Your task to perform on an android device: change timer sound Image 0: 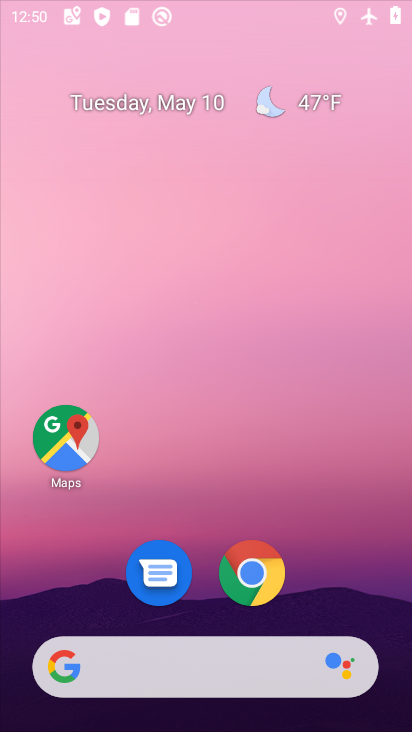
Step 0: click (176, 277)
Your task to perform on an android device: change timer sound Image 1: 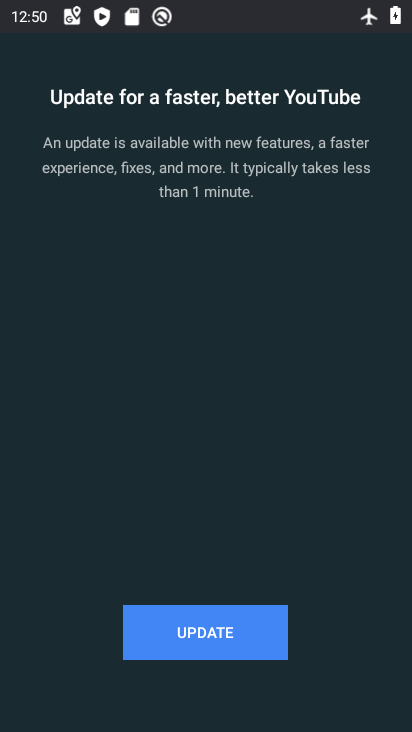
Step 1: press home button
Your task to perform on an android device: change timer sound Image 2: 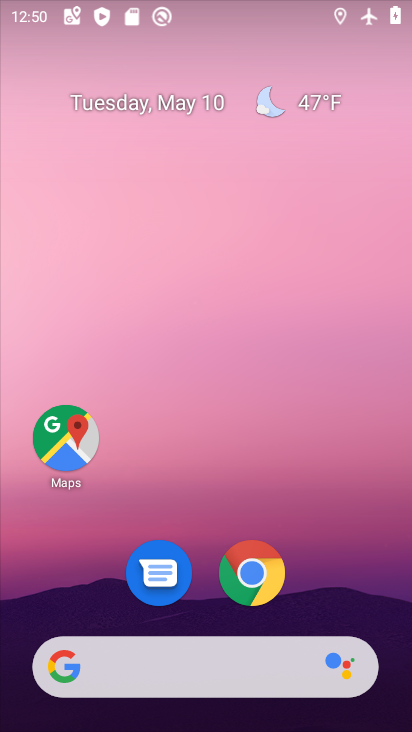
Step 2: drag from (197, 624) to (271, 175)
Your task to perform on an android device: change timer sound Image 3: 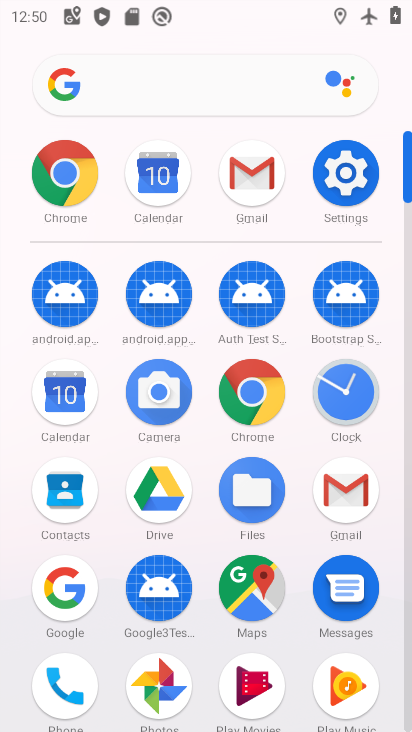
Step 3: click (334, 400)
Your task to perform on an android device: change timer sound Image 4: 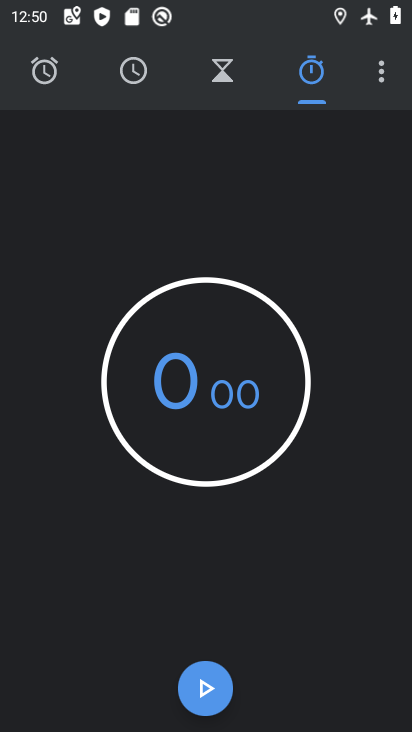
Step 4: drag from (239, 663) to (218, 305)
Your task to perform on an android device: change timer sound Image 5: 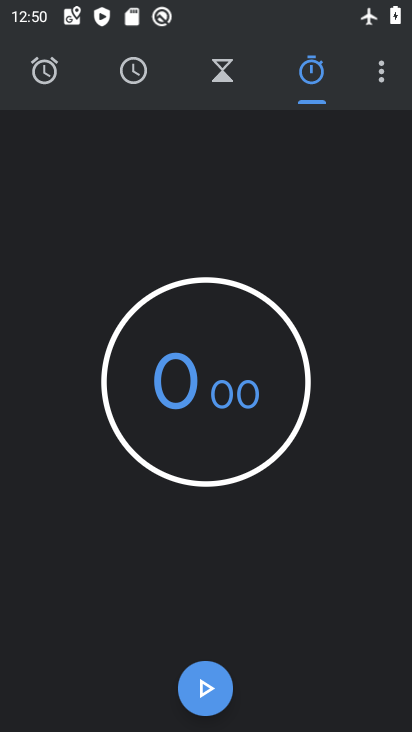
Step 5: click (380, 71)
Your task to perform on an android device: change timer sound Image 6: 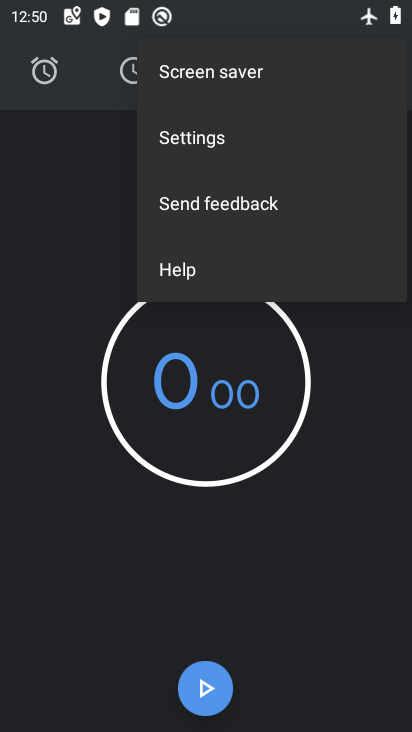
Step 6: click (263, 154)
Your task to perform on an android device: change timer sound Image 7: 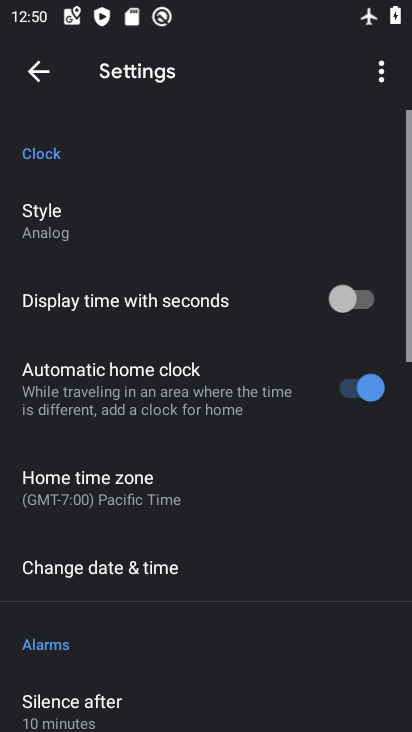
Step 7: drag from (263, 567) to (268, 229)
Your task to perform on an android device: change timer sound Image 8: 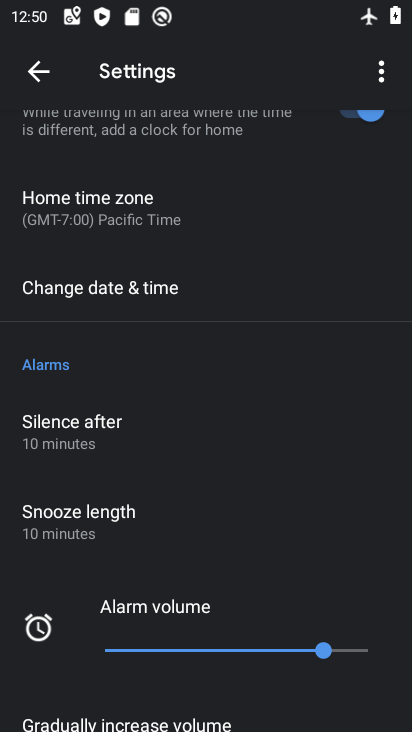
Step 8: drag from (242, 550) to (238, 276)
Your task to perform on an android device: change timer sound Image 9: 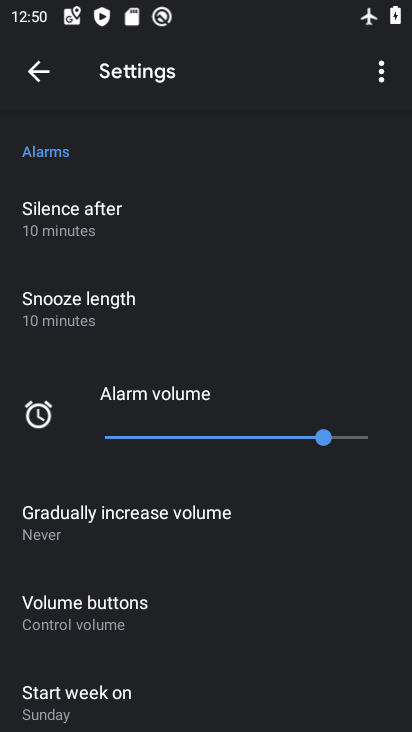
Step 9: drag from (149, 656) to (219, 295)
Your task to perform on an android device: change timer sound Image 10: 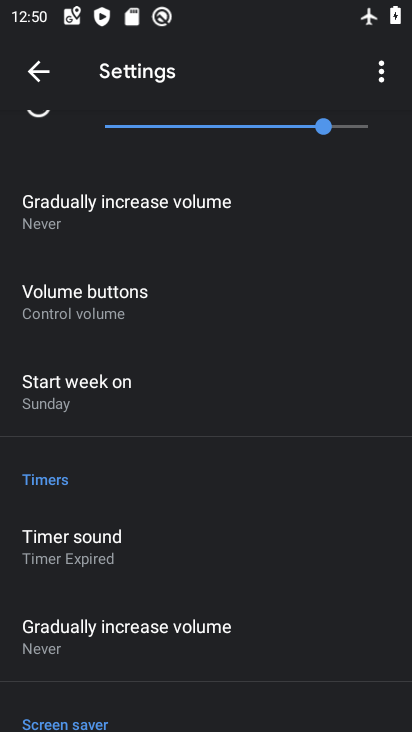
Step 10: click (120, 537)
Your task to perform on an android device: change timer sound Image 11: 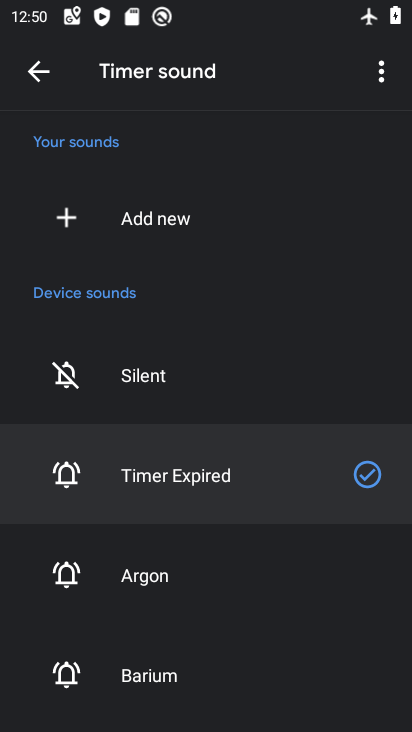
Step 11: drag from (169, 670) to (219, 302)
Your task to perform on an android device: change timer sound Image 12: 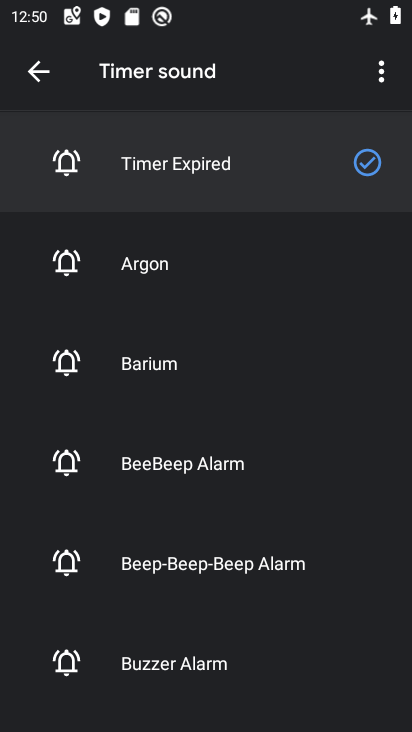
Step 12: click (195, 469)
Your task to perform on an android device: change timer sound Image 13: 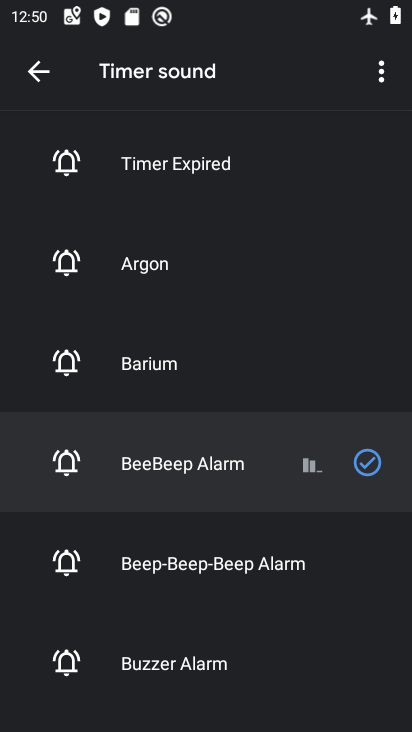
Step 13: task complete